Your task to perform on an android device: Go to settings Image 0: 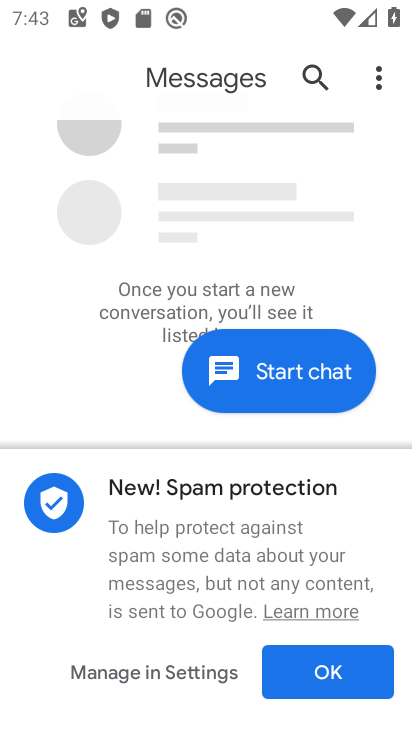
Step 0: drag from (356, 574) to (366, 229)
Your task to perform on an android device: Go to settings Image 1: 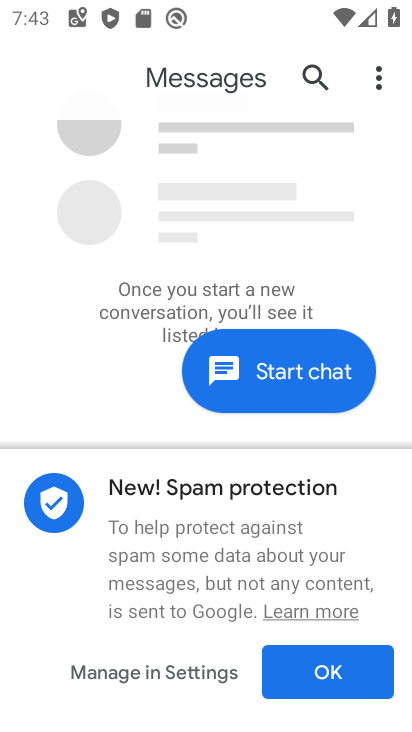
Step 1: press home button
Your task to perform on an android device: Go to settings Image 2: 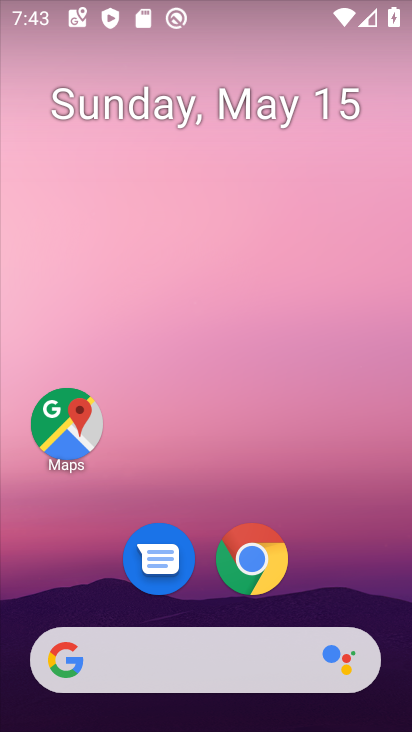
Step 2: drag from (307, 593) to (280, 174)
Your task to perform on an android device: Go to settings Image 3: 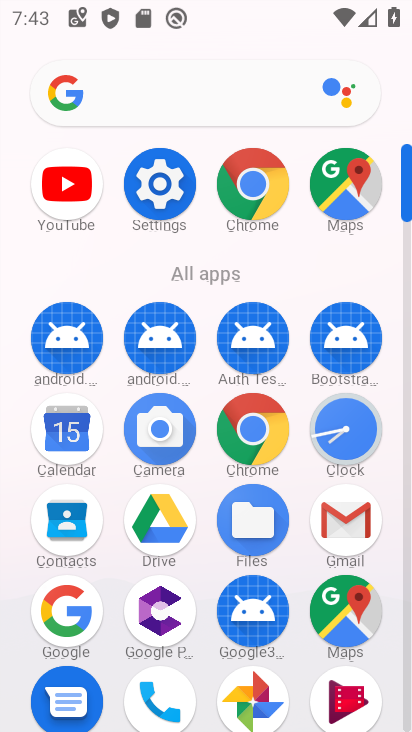
Step 3: click (159, 193)
Your task to perform on an android device: Go to settings Image 4: 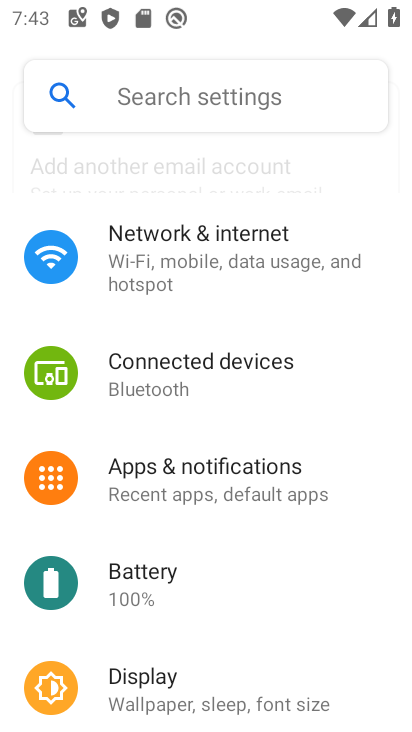
Step 4: task complete